Your task to perform on an android device: Search for Italian restaurants on Maps Image 0: 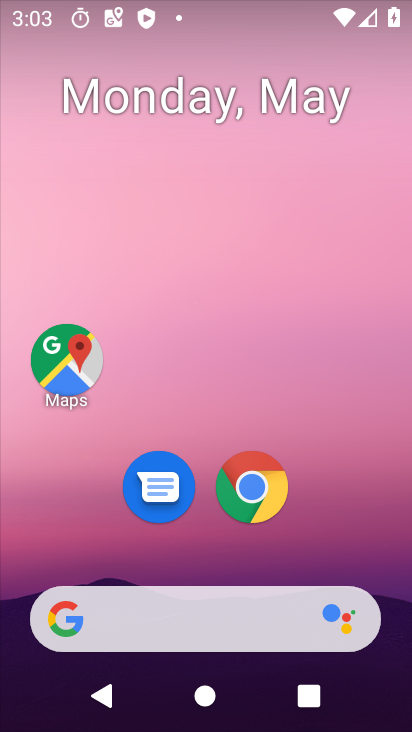
Step 0: click (218, 560)
Your task to perform on an android device: Search for Italian restaurants on Maps Image 1: 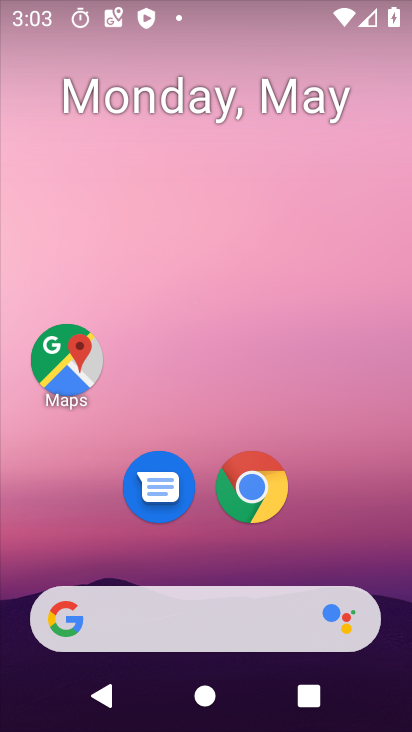
Step 1: click (71, 366)
Your task to perform on an android device: Search for Italian restaurants on Maps Image 2: 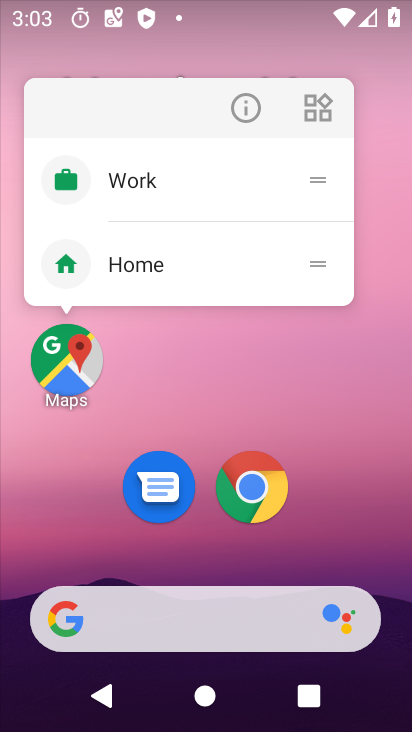
Step 2: click (85, 350)
Your task to perform on an android device: Search for Italian restaurants on Maps Image 3: 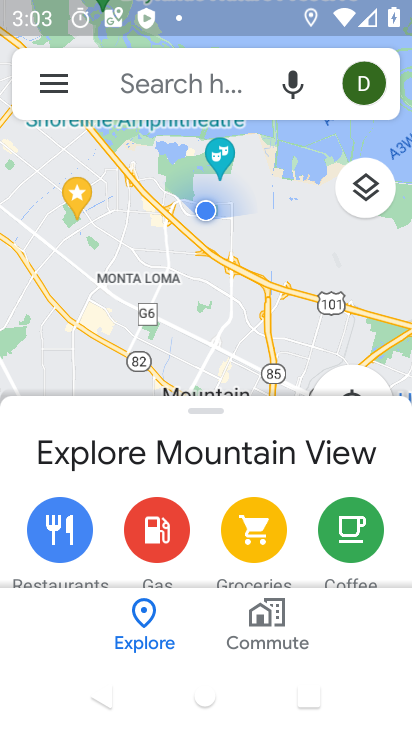
Step 3: click (170, 68)
Your task to perform on an android device: Search for Italian restaurants on Maps Image 4: 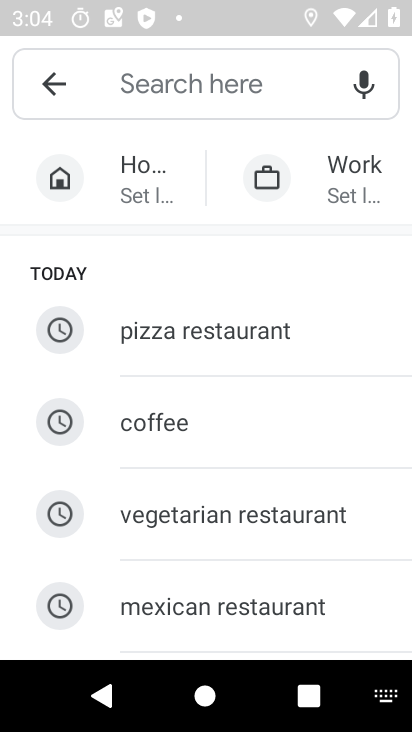
Step 4: type "italian restaurants"
Your task to perform on an android device: Search for Italian restaurants on Maps Image 5: 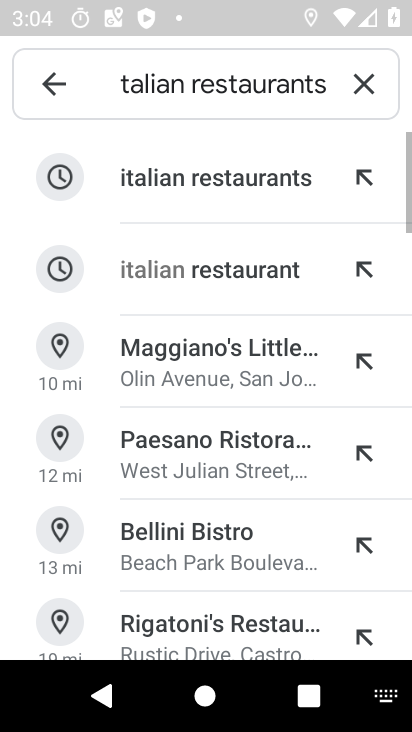
Step 5: click (195, 191)
Your task to perform on an android device: Search for Italian restaurants on Maps Image 6: 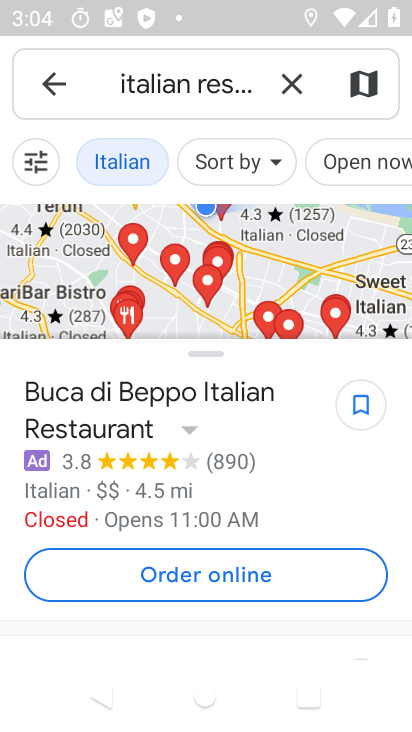
Step 6: task complete